Your task to perform on an android device: What's on my calendar today? Image 0: 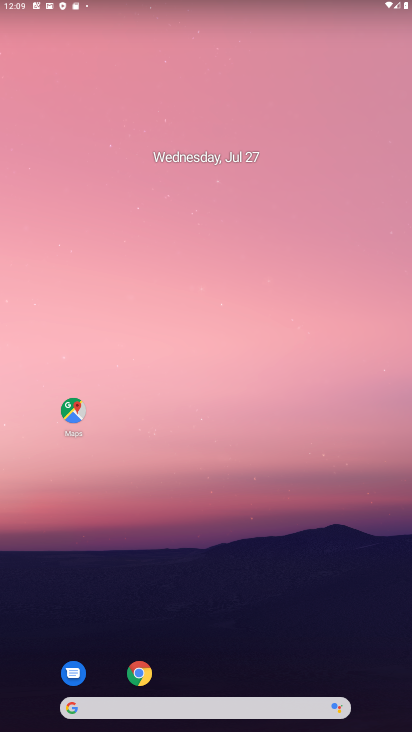
Step 0: drag from (181, 635) to (167, 116)
Your task to perform on an android device: What's on my calendar today? Image 1: 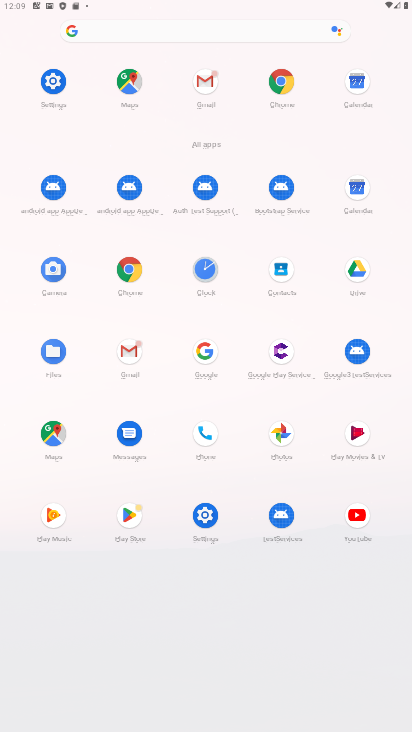
Step 1: click (347, 185)
Your task to perform on an android device: What's on my calendar today? Image 2: 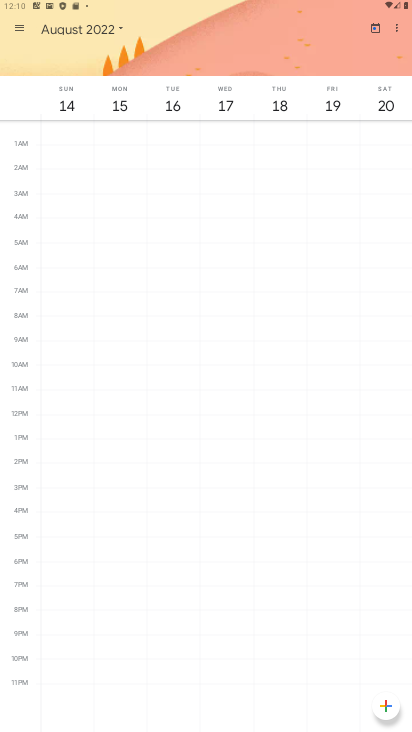
Step 2: drag from (54, 88) to (404, 125)
Your task to perform on an android device: What's on my calendar today? Image 3: 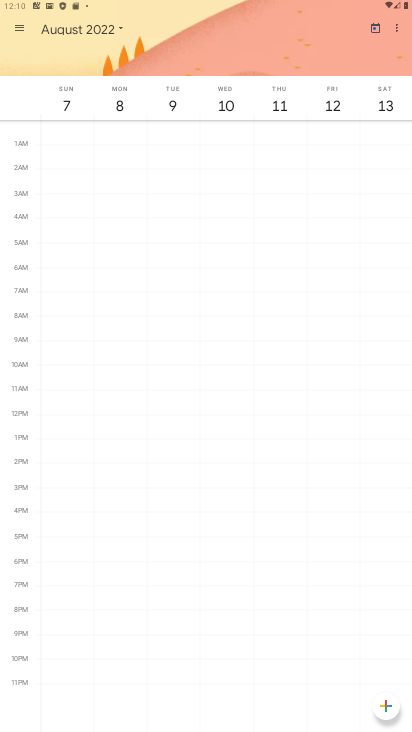
Step 3: drag from (56, 97) to (351, 123)
Your task to perform on an android device: What's on my calendar today? Image 4: 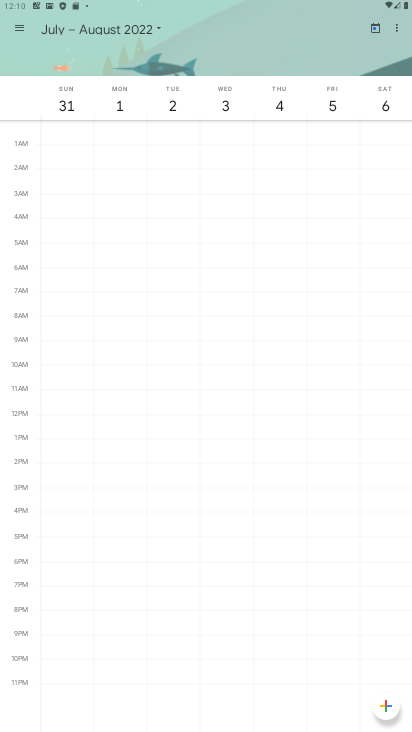
Step 4: drag from (62, 91) to (409, 106)
Your task to perform on an android device: What's on my calendar today? Image 5: 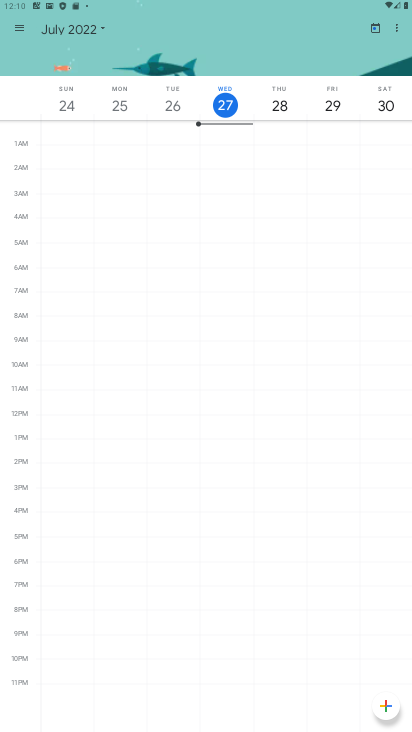
Step 5: click (232, 103)
Your task to perform on an android device: What's on my calendar today? Image 6: 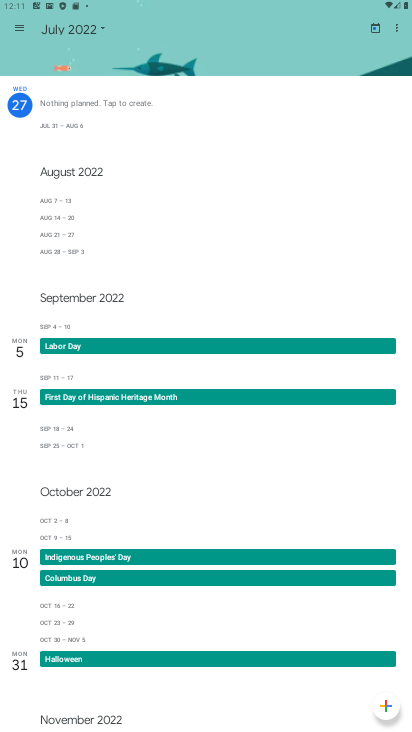
Step 6: task complete